Your task to perform on an android device: show emergency info Image 0: 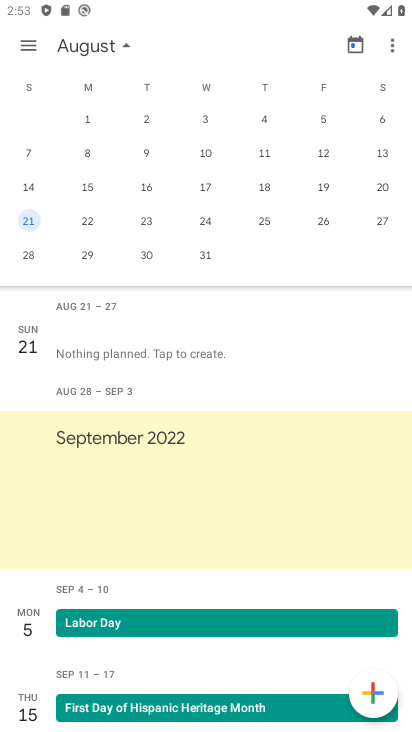
Step 0: press home button
Your task to perform on an android device: show emergency info Image 1: 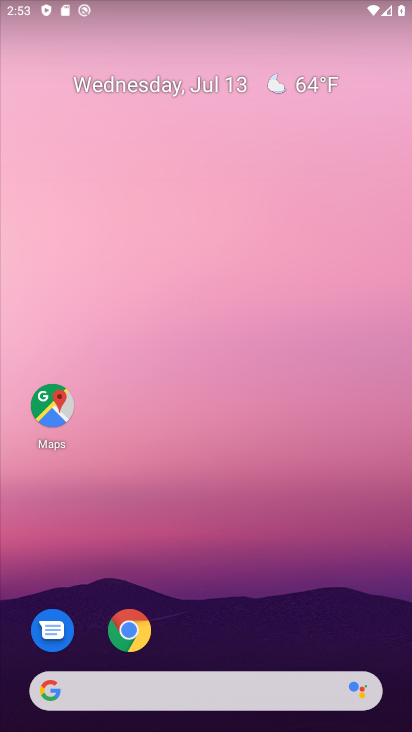
Step 1: drag from (259, 603) to (399, 0)
Your task to perform on an android device: show emergency info Image 2: 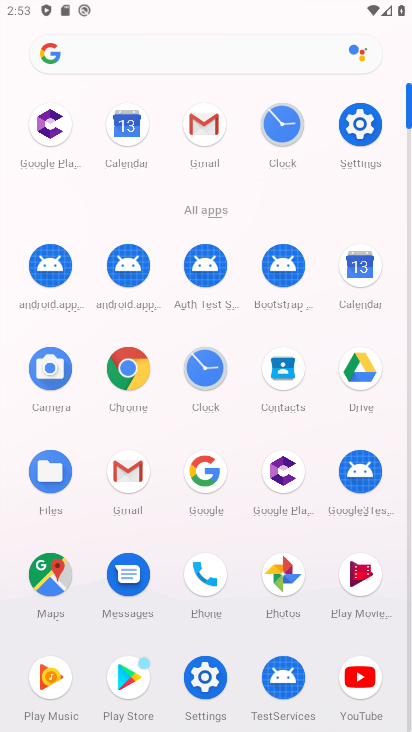
Step 2: click (354, 135)
Your task to perform on an android device: show emergency info Image 3: 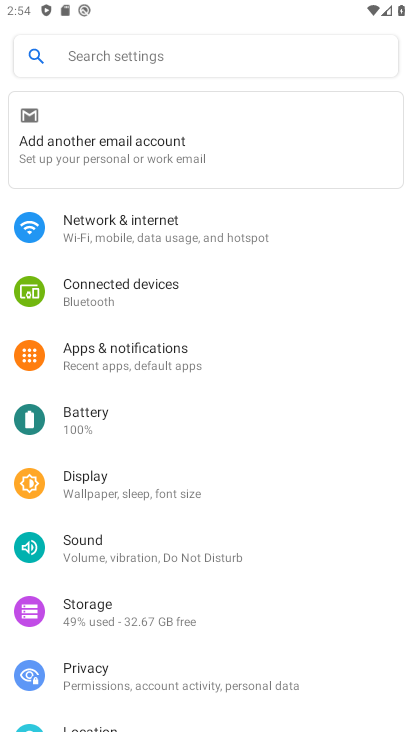
Step 3: drag from (165, 617) to (164, 194)
Your task to perform on an android device: show emergency info Image 4: 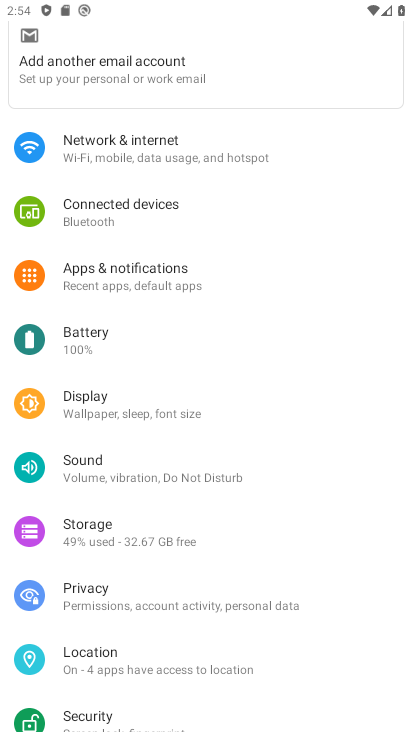
Step 4: drag from (163, 637) to (188, 73)
Your task to perform on an android device: show emergency info Image 5: 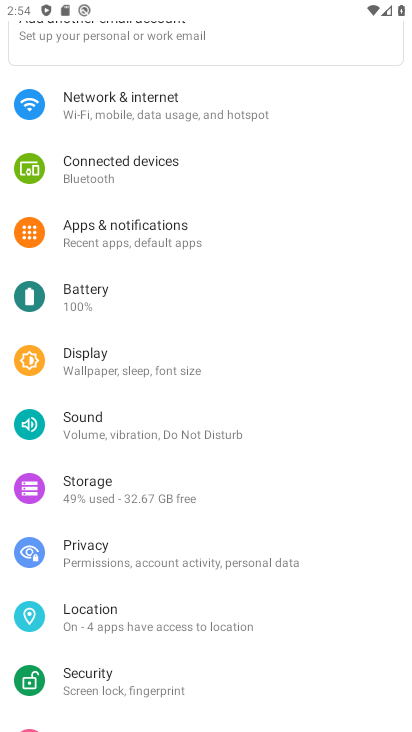
Step 5: drag from (210, 532) to (347, 37)
Your task to perform on an android device: show emergency info Image 6: 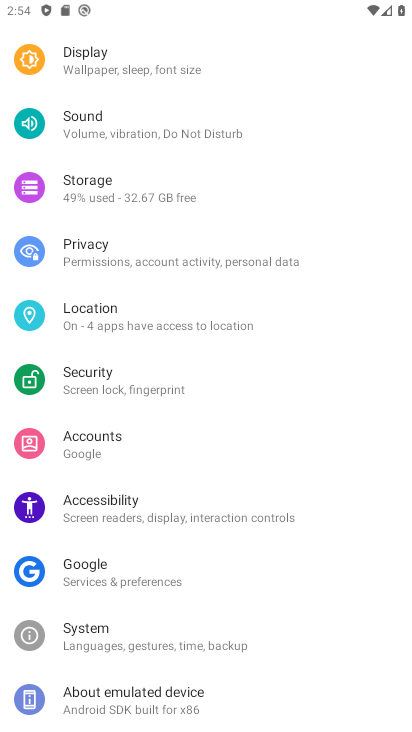
Step 6: click (177, 700)
Your task to perform on an android device: show emergency info Image 7: 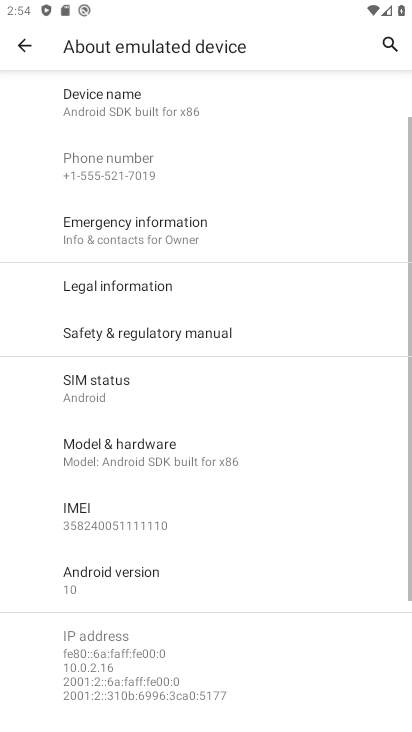
Step 7: click (157, 222)
Your task to perform on an android device: show emergency info Image 8: 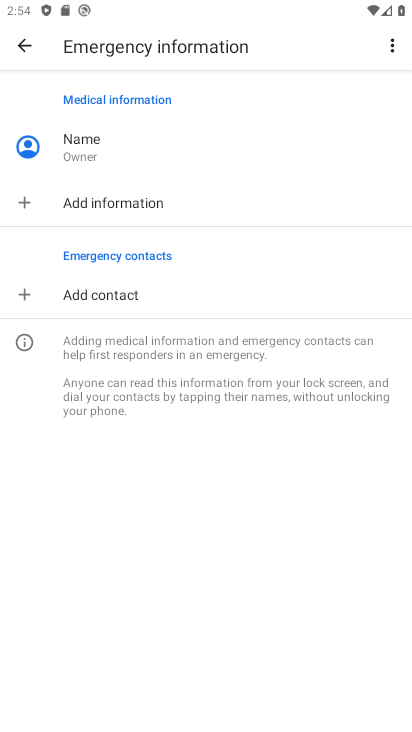
Step 8: task complete